Your task to perform on an android device: toggle airplane mode Image 0: 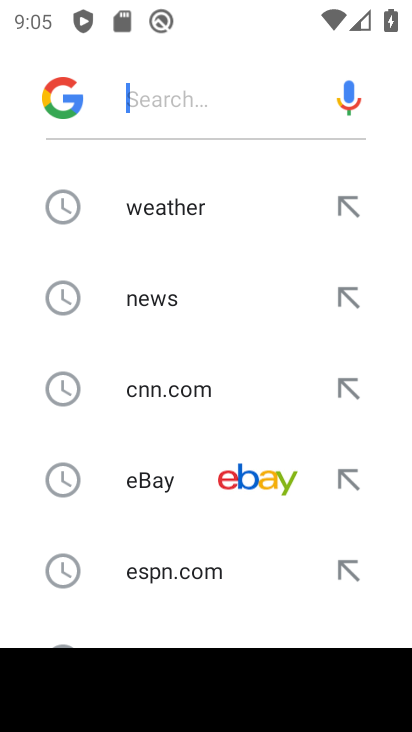
Step 0: drag from (233, 5) to (220, 507)
Your task to perform on an android device: toggle airplane mode Image 1: 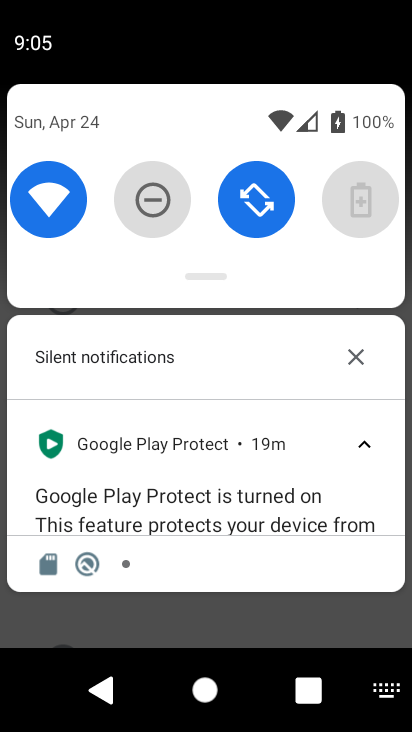
Step 1: drag from (225, 128) to (232, 553)
Your task to perform on an android device: toggle airplane mode Image 2: 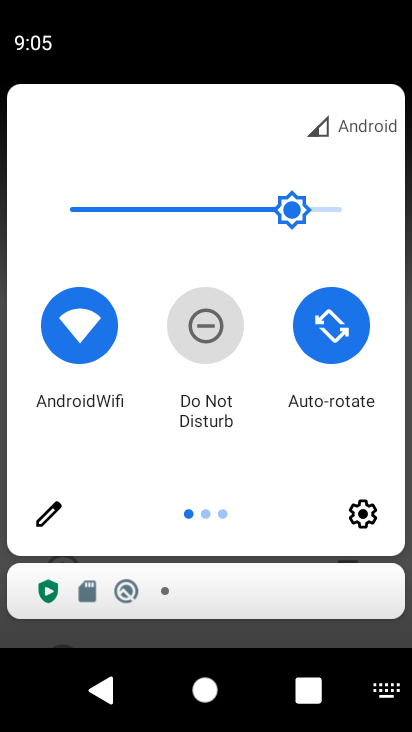
Step 2: drag from (354, 431) to (75, 427)
Your task to perform on an android device: toggle airplane mode Image 3: 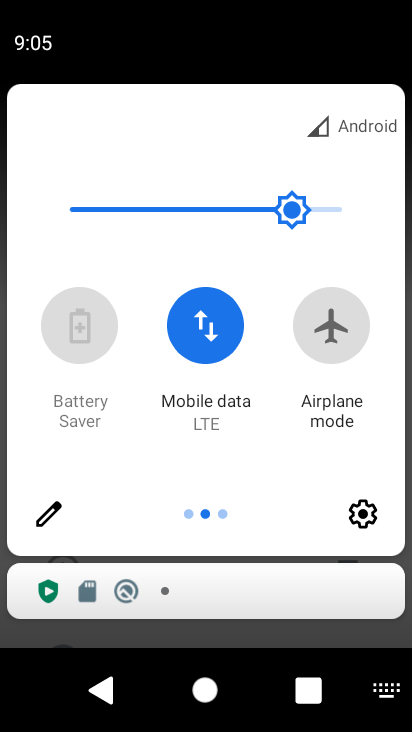
Step 3: click (341, 316)
Your task to perform on an android device: toggle airplane mode Image 4: 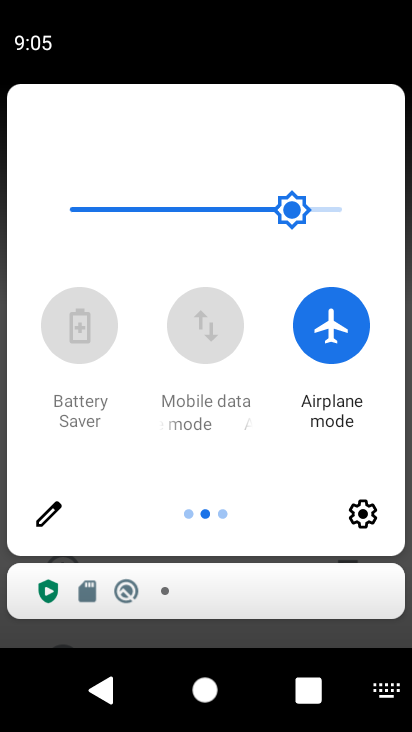
Step 4: click (341, 316)
Your task to perform on an android device: toggle airplane mode Image 5: 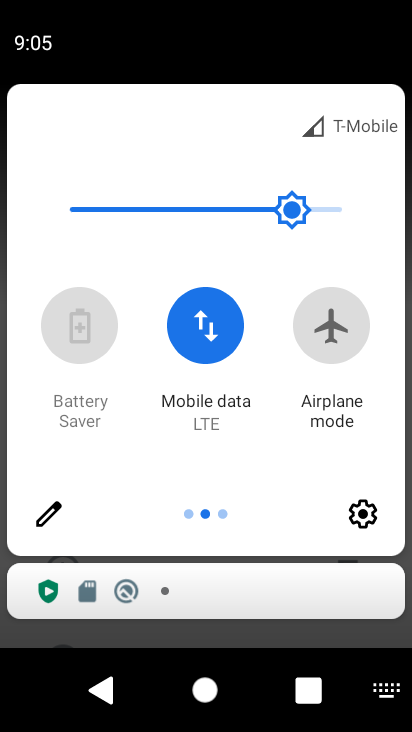
Step 5: click (341, 316)
Your task to perform on an android device: toggle airplane mode Image 6: 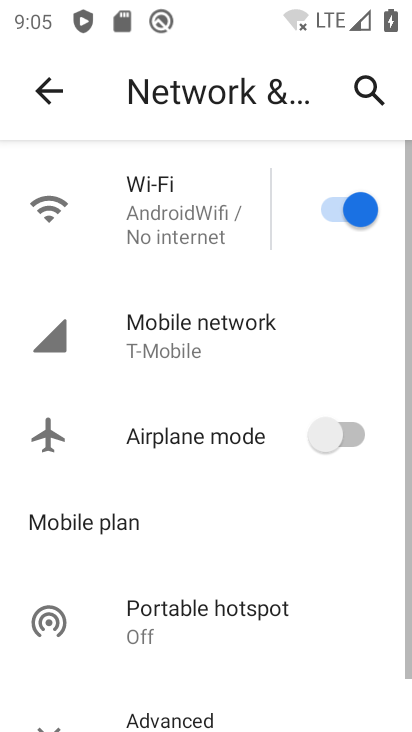
Step 6: click (353, 427)
Your task to perform on an android device: toggle airplane mode Image 7: 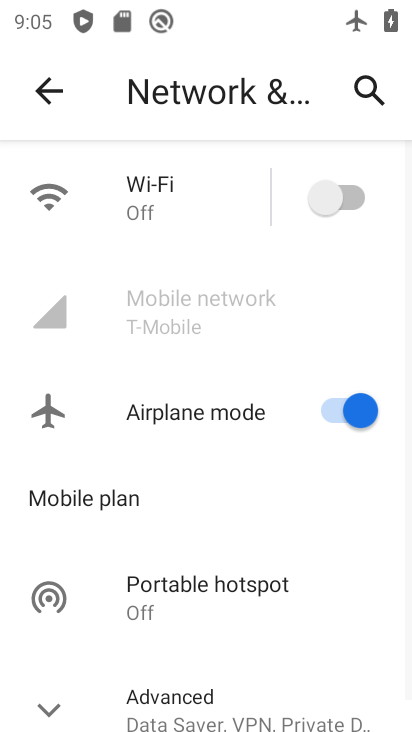
Step 7: click (341, 411)
Your task to perform on an android device: toggle airplane mode Image 8: 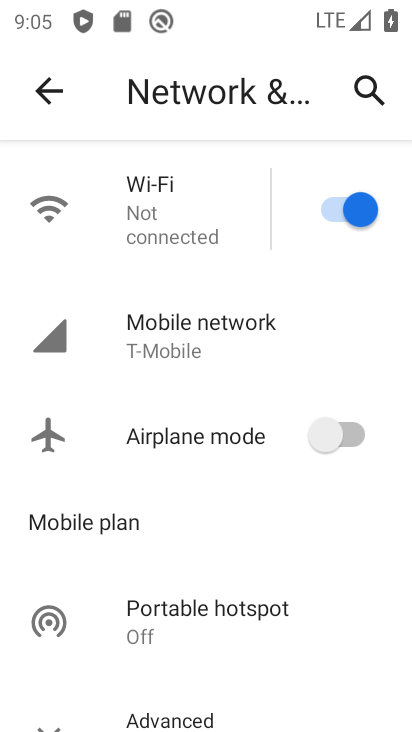
Step 8: task complete